Your task to perform on an android device: Is it going to rain this weekend? Image 0: 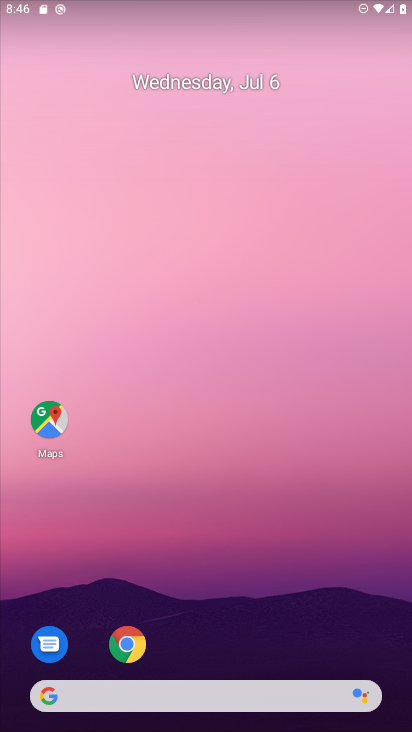
Step 0: click (240, 689)
Your task to perform on an android device: Is it going to rain this weekend? Image 1: 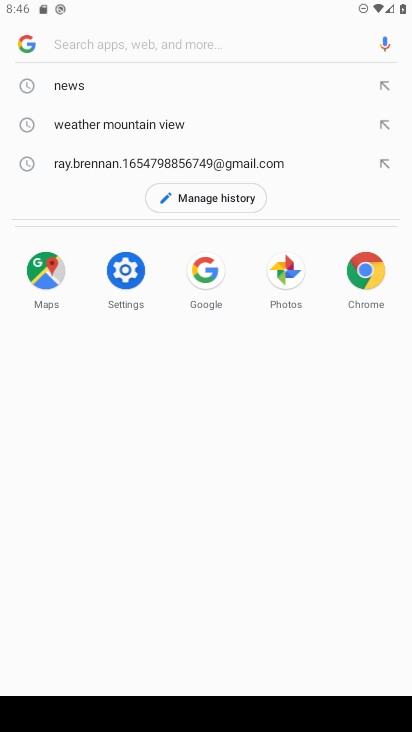
Step 1: click (69, 127)
Your task to perform on an android device: Is it going to rain this weekend? Image 2: 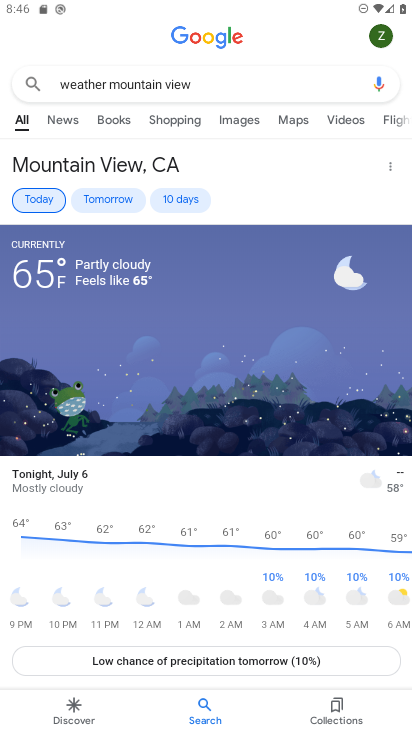
Step 2: click (208, 199)
Your task to perform on an android device: Is it going to rain this weekend? Image 3: 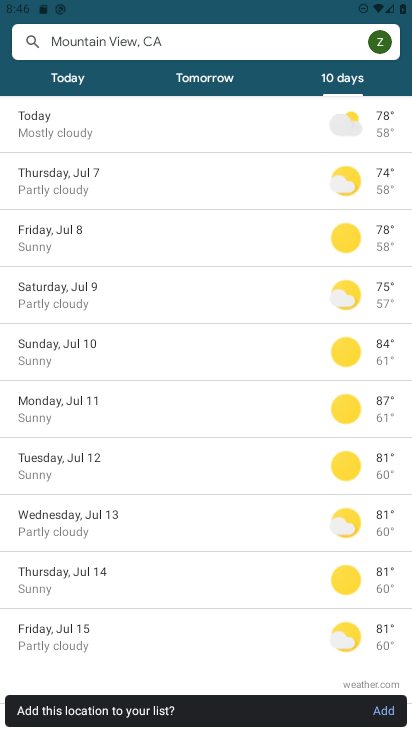
Step 3: task complete